Your task to perform on an android device: Open the stopwatch Image 0: 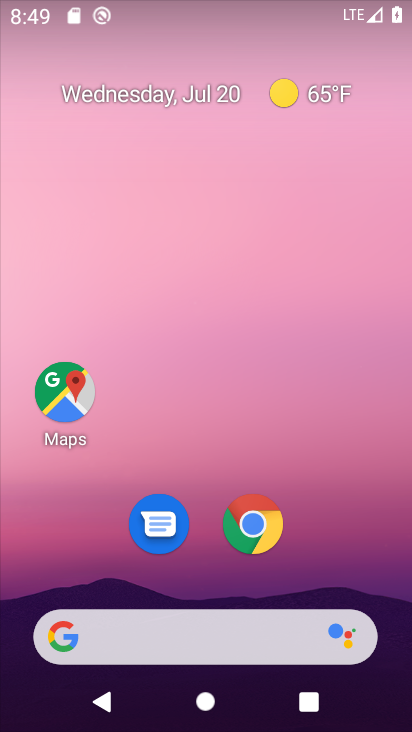
Step 0: drag from (328, 555) to (345, 70)
Your task to perform on an android device: Open the stopwatch Image 1: 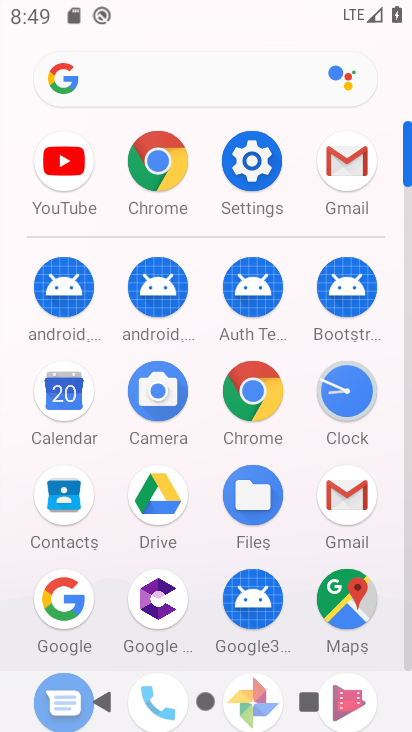
Step 1: click (341, 381)
Your task to perform on an android device: Open the stopwatch Image 2: 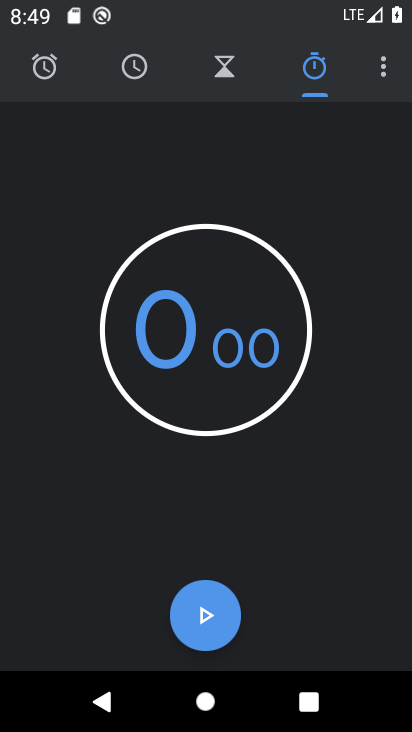
Step 2: click (313, 78)
Your task to perform on an android device: Open the stopwatch Image 3: 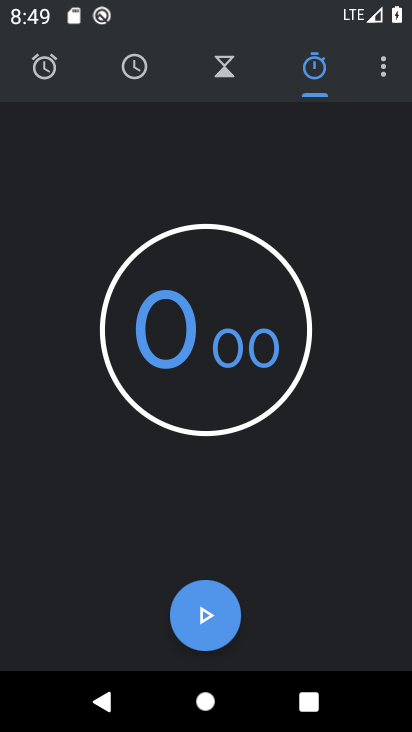
Step 3: task complete